Your task to perform on an android device: turn notification dots off Image 0: 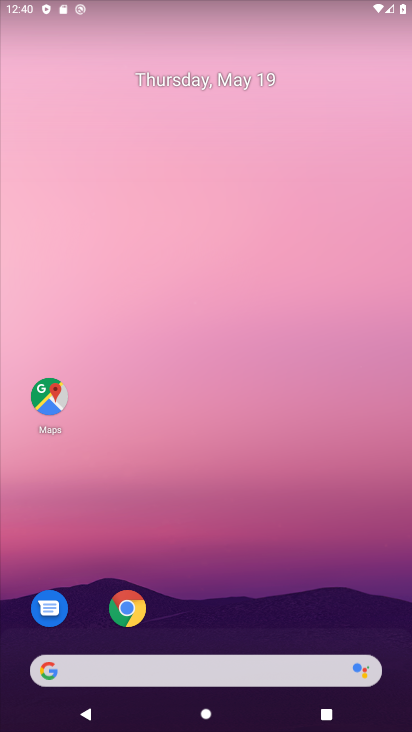
Step 0: drag from (212, 591) to (245, 183)
Your task to perform on an android device: turn notification dots off Image 1: 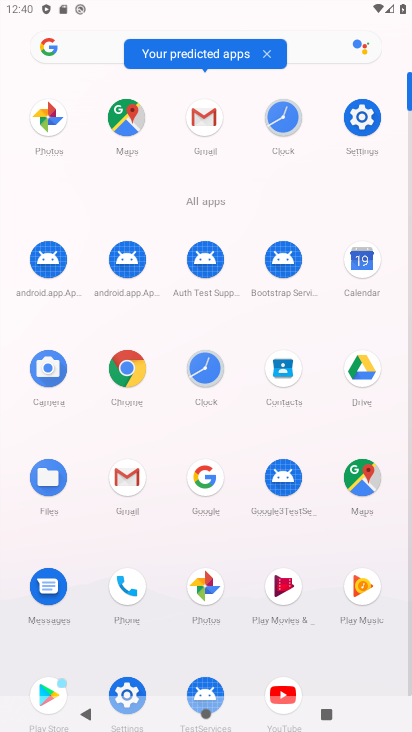
Step 1: click (373, 134)
Your task to perform on an android device: turn notification dots off Image 2: 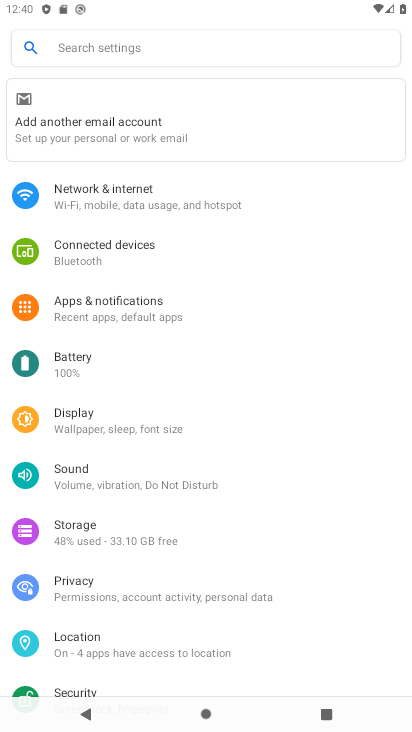
Step 2: click (143, 307)
Your task to perform on an android device: turn notification dots off Image 3: 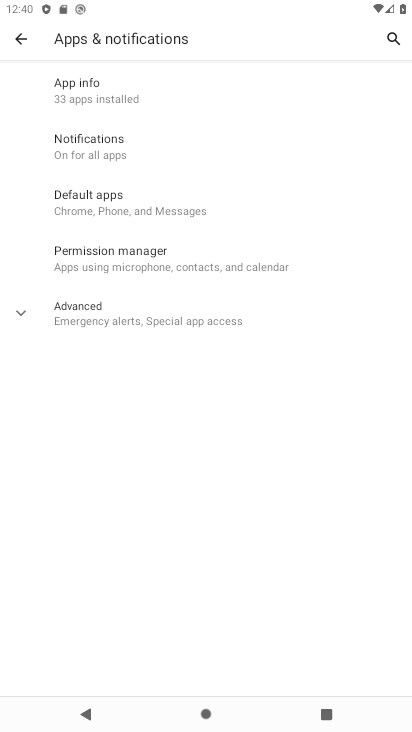
Step 3: click (115, 139)
Your task to perform on an android device: turn notification dots off Image 4: 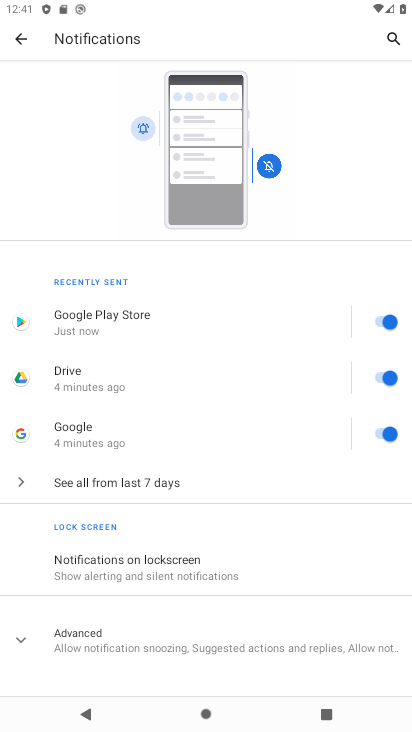
Step 4: click (180, 636)
Your task to perform on an android device: turn notification dots off Image 5: 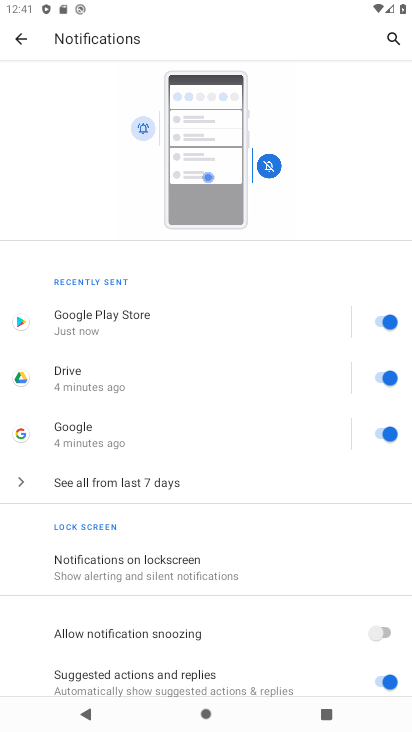
Step 5: drag from (243, 616) to (266, 428)
Your task to perform on an android device: turn notification dots off Image 6: 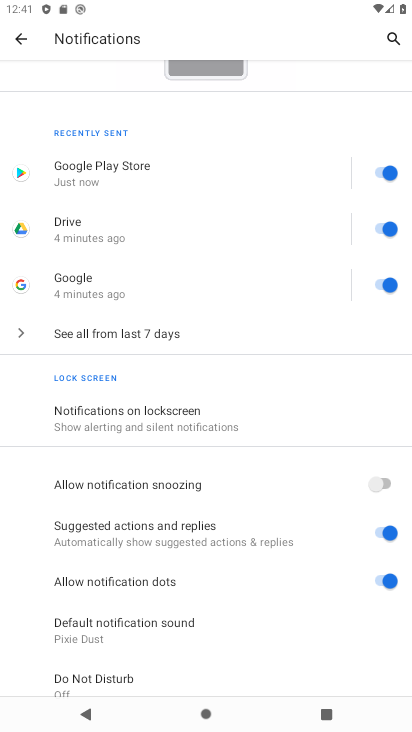
Step 6: click (375, 579)
Your task to perform on an android device: turn notification dots off Image 7: 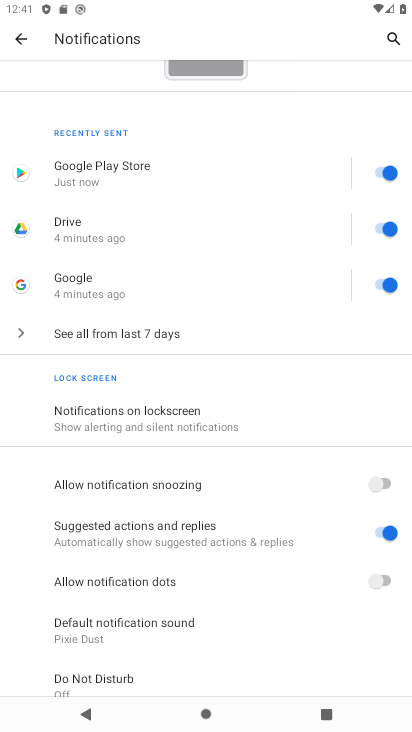
Step 7: task complete